Your task to perform on an android device: Show me recent news Image 0: 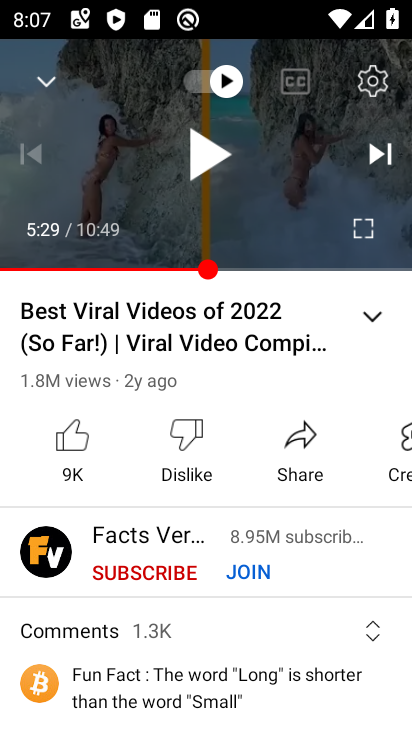
Step 0: press home button
Your task to perform on an android device: Show me recent news Image 1: 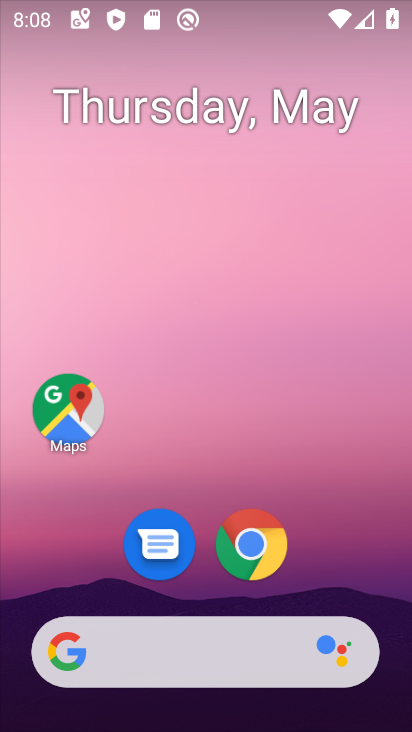
Step 1: click (259, 539)
Your task to perform on an android device: Show me recent news Image 2: 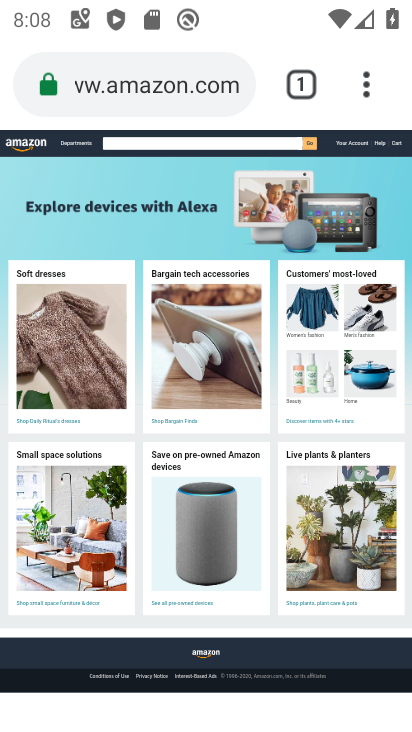
Step 2: click (135, 71)
Your task to perform on an android device: Show me recent news Image 3: 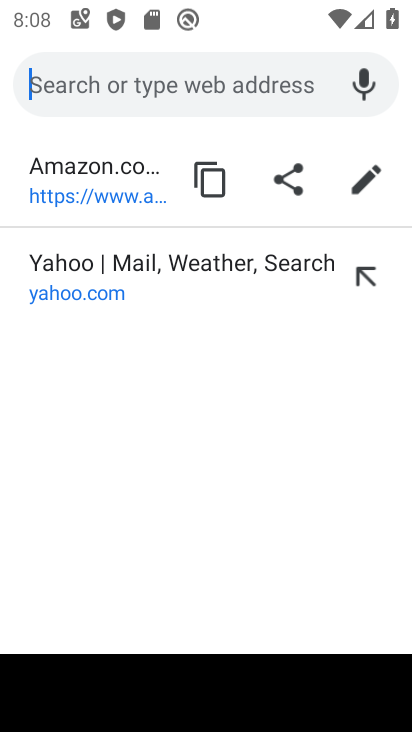
Step 3: type "Show me recent news"
Your task to perform on an android device: Show me recent news Image 4: 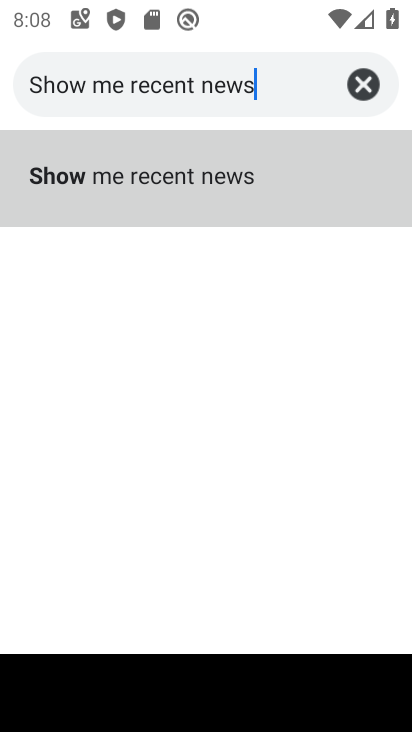
Step 4: click (58, 207)
Your task to perform on an android device: Show me recent news Image 5: 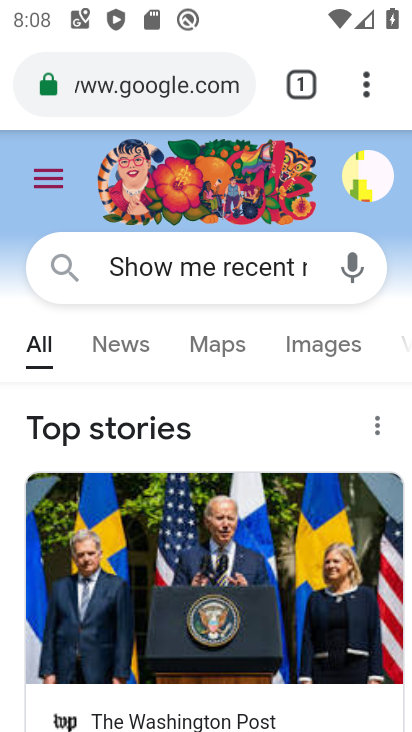
Step 5: task complete